Your task to perform on an android device: star an email in the gmail app Image 0: 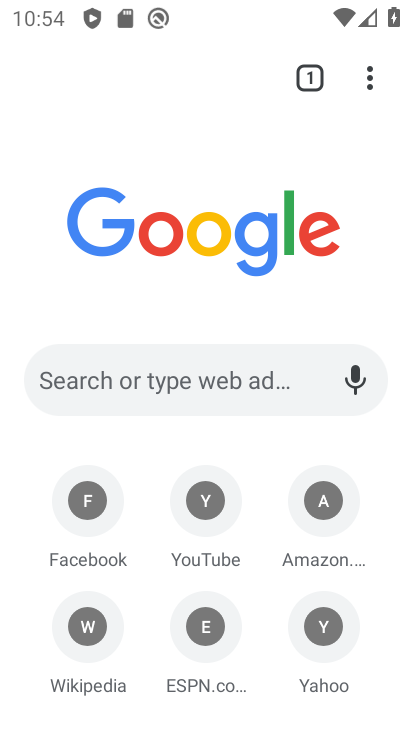
Step 0: press home button
Your task to perform on an android device: star an email in the gmail app Image 1: 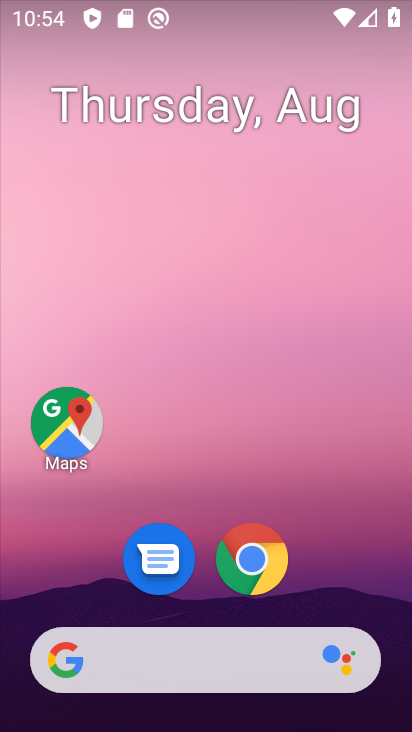
Step 1: drag from (336, 583) to (299, 249)
Your task to perform on an android device: star an email in the gmail app Image 2: 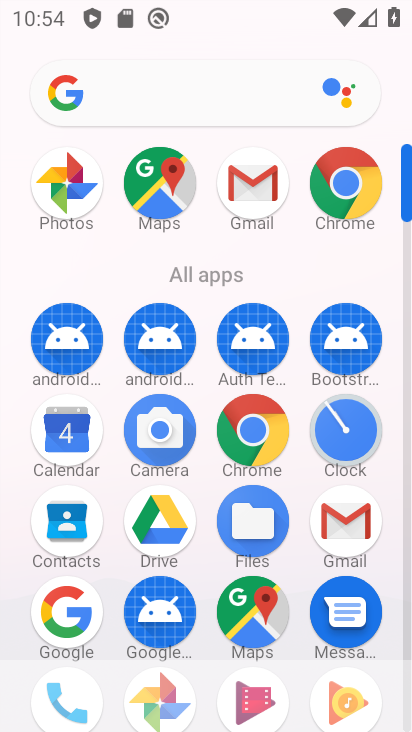
Step 2: click (345, 528)
Your task to perform on an android device: star an email in the gmail app Image 3: 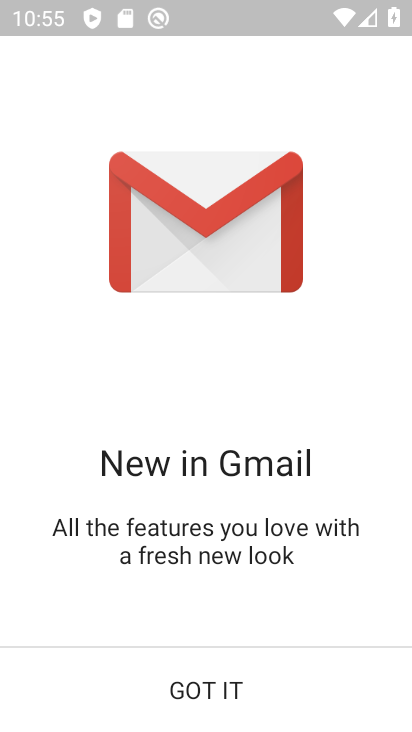
Step 3: click (338, 692)
Your task to perform on an android device: star an email in the gmail app Image 4: 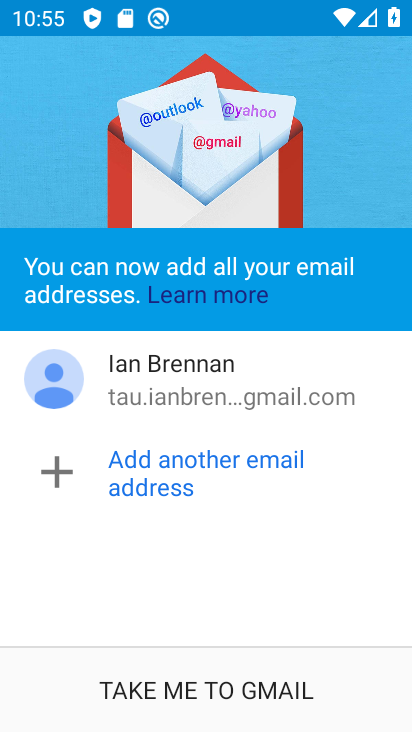
Step 4: click (270, 692)
Your task to perform on an android device: star an email in the gmail app Image 5: 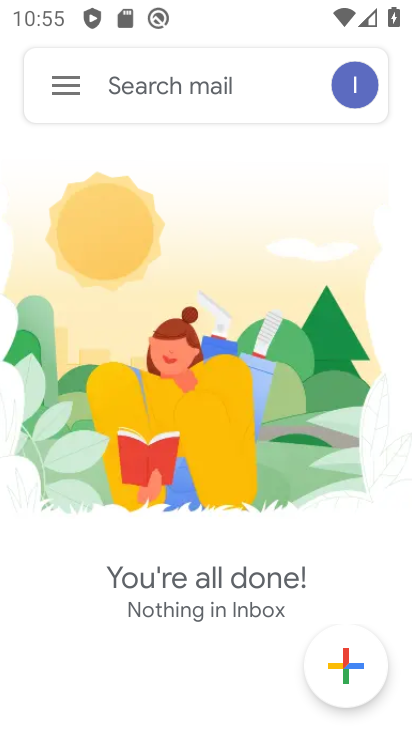
Step 5: click (75, 98)
Your task to perform on an android device: star an email in the gmail app Image 6: 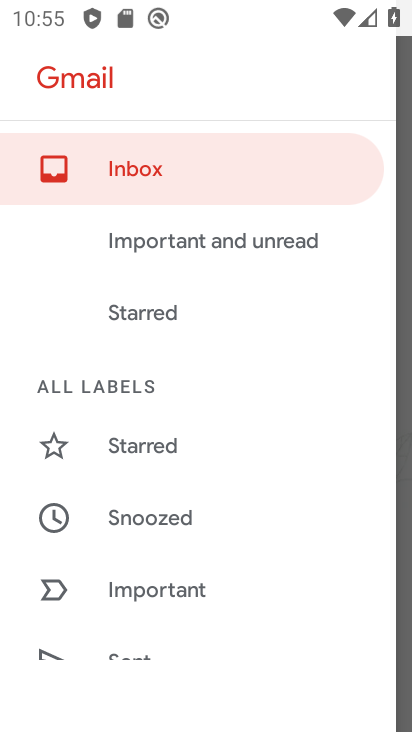
Step 6: drag from (252, 483) to (249, 325)
Your task to perform on an android device: star an email in the gmail app Image 7: 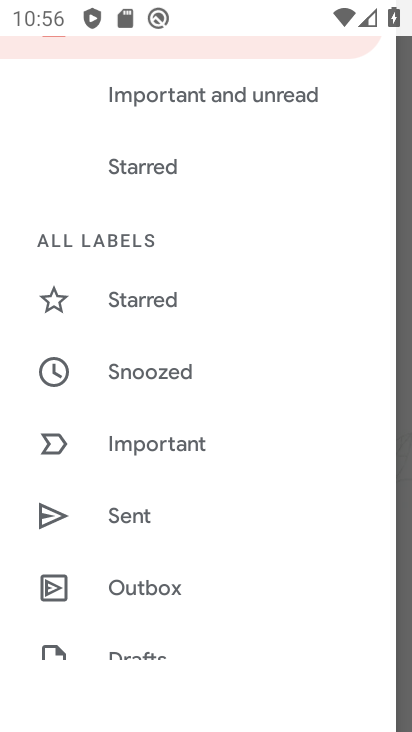
Step 7: drag from (187, 558) to (211, 336)
Your task to perform on an android device: star an email in the gmail app Image 8: 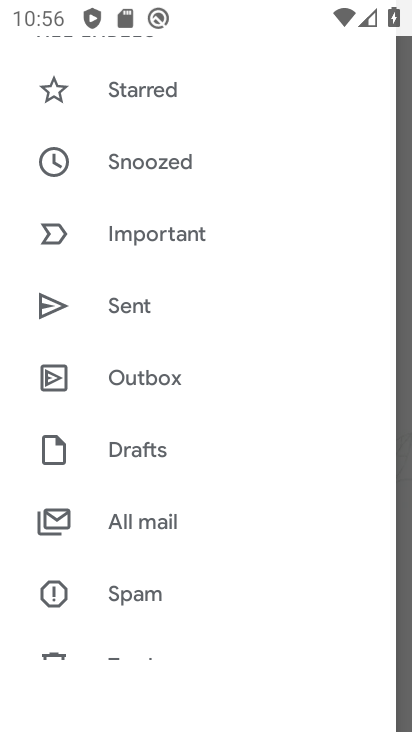
Step 8: click (217, 508)
Your task to perform on an android device: star an email in the gmail app Image 9: 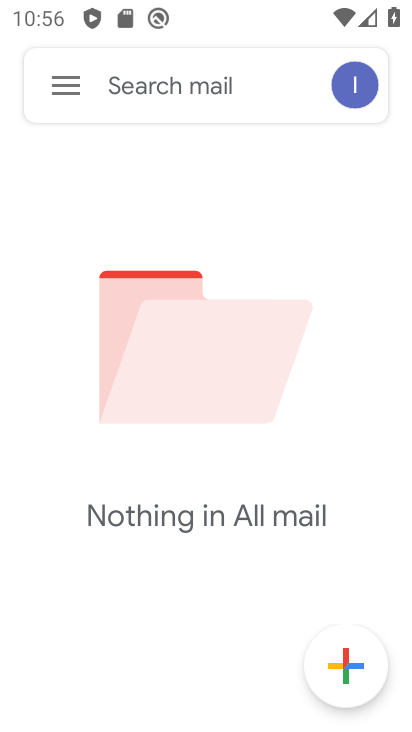
Step 9: task complete